Your task to perform on an android device: turn off data saver in the chrome app Image 0: 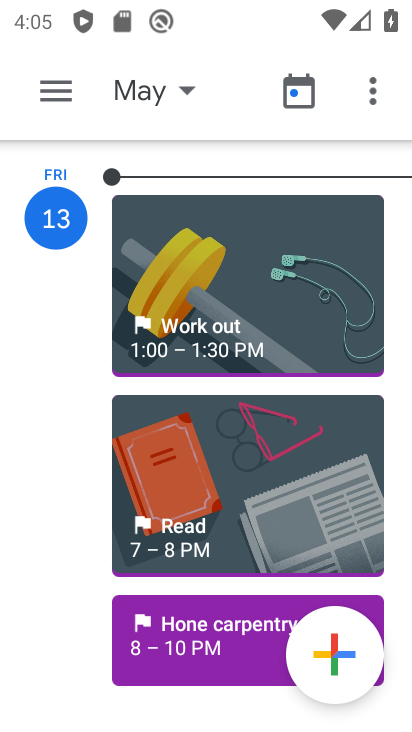
Step 0: press home button
Your task to perform on an android device: turn off data saver in the chrome app Image 1: 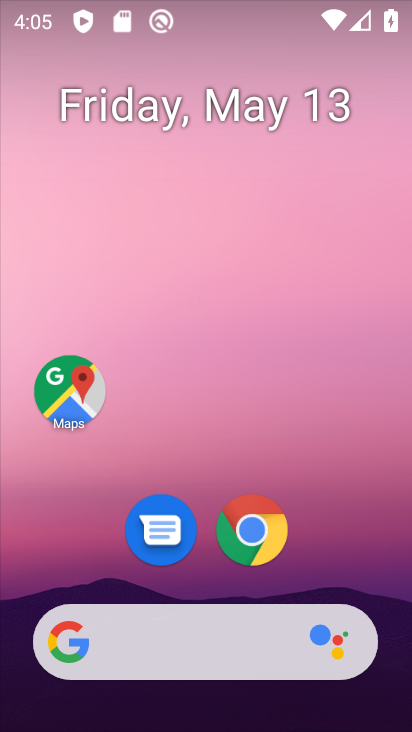
Step 1: drag from (234, 613) to (298, 158)
Your task to perform on an android device: turn off data saver in the chrome app Image 2: 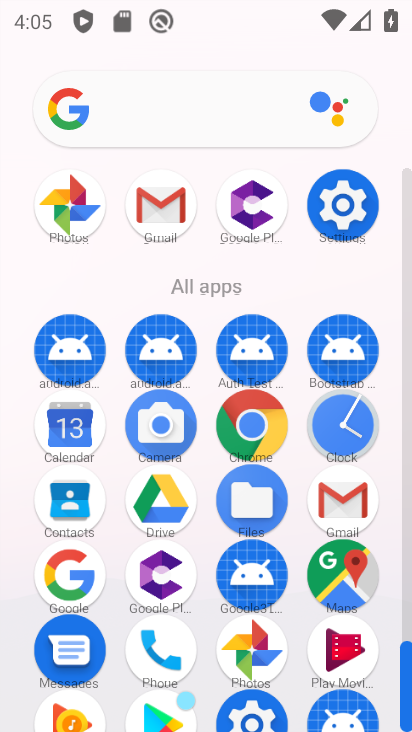
Step 2: click (256, 429)
Your task to perform on an android device: turn off data saver in the chrome app Image 3: 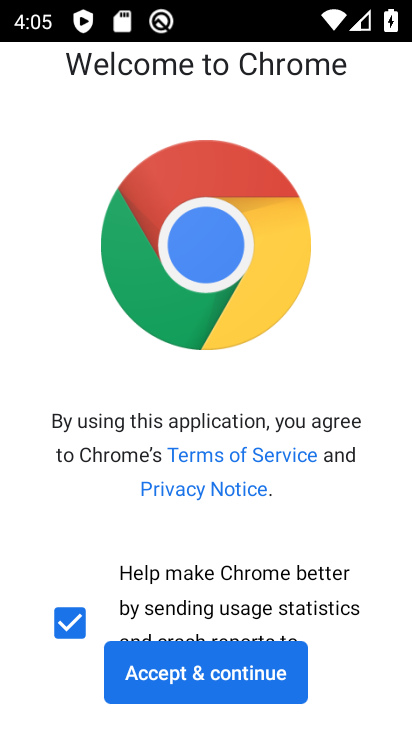
Step 3: click (238, 675)
Your task to perform on an android device: turn off data saver in the chrome app Image 4: 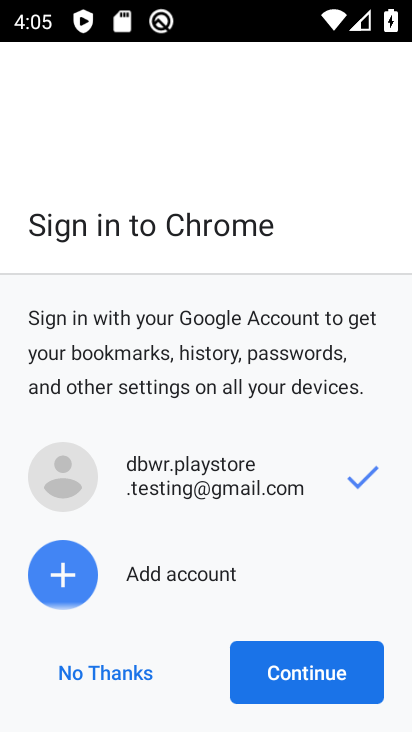
Step 4: click (264, 669)
Your task to perform on an android device: turn off data saver in the chrome app Image 5: 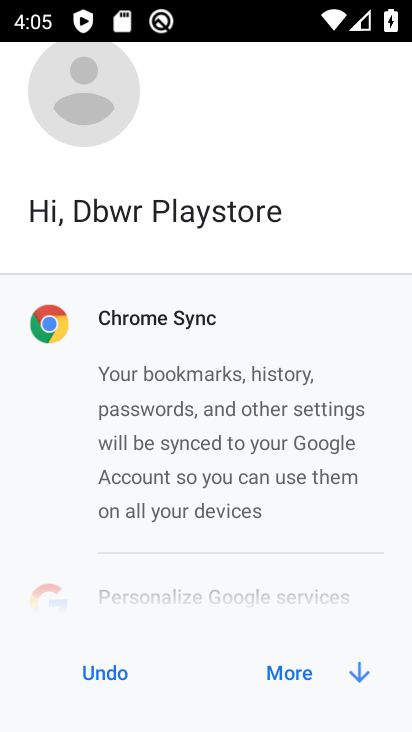
Step 5: click (331, 671)
Your task to perform on an android device: turn off data saver in the chrome app Image 6: 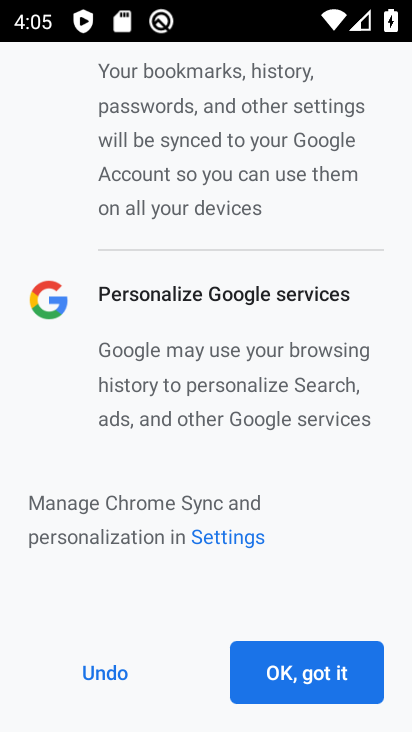
Step 6: click (326, 657)
Your task to perform on an android device: turn off data saver in the chrome app Image 7: 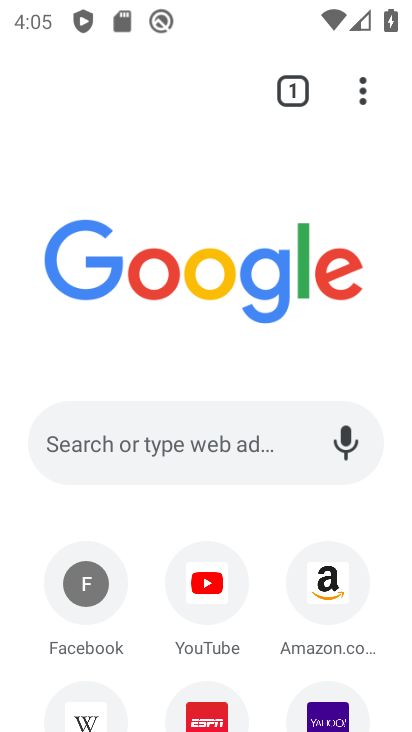
Step 7: click (354, 110)
Your task to perform on an android device: turn off data saver in the chrome app Image 8: 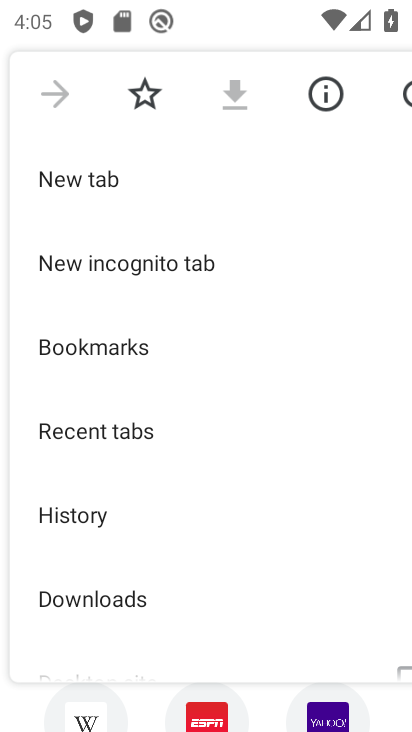
Step 8: drag from (97, 595) to (157, 391)
Your task to perform on an android device: turn off data saver in the chrome app Image 9: 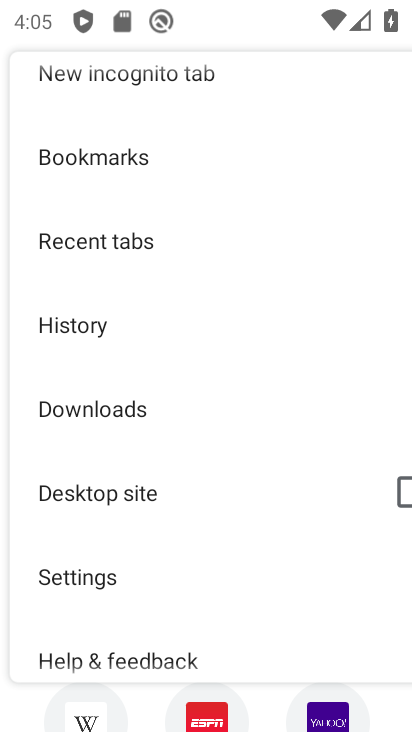
Step 9: click (125, 573)
Your task to perform on an android device: turn off data saver in the chrome app Image 10: 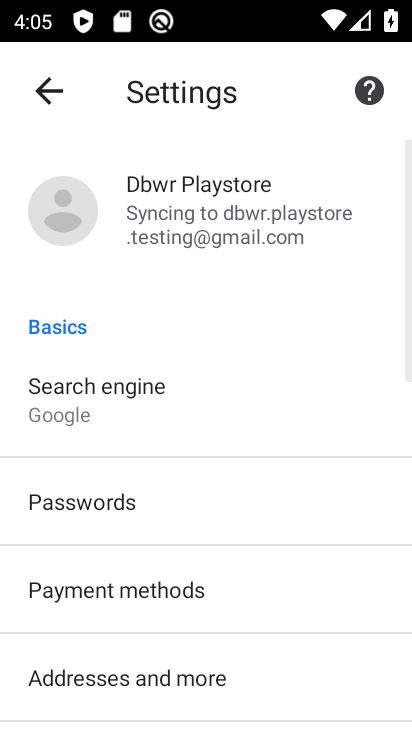
Step 10: drag from (173, 606) to (234, 240)
Your task to perform on an android device: turn off data saver in the chrome app Image 11: 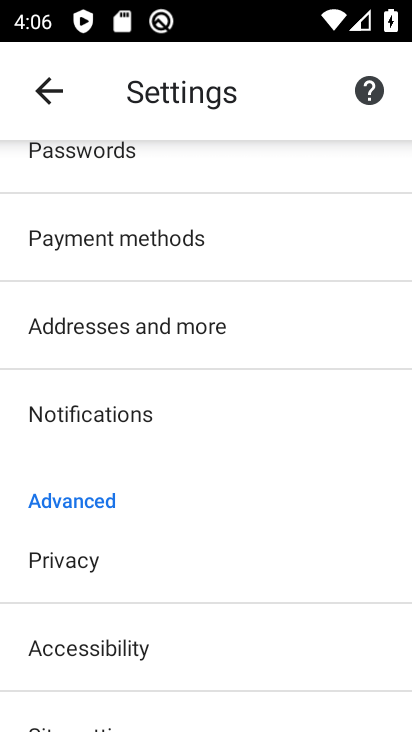
Step 11: drag from (142, 499) to (190, 317)
Your task to perform on an android device: turn off data saver in the chrome app Image 12: 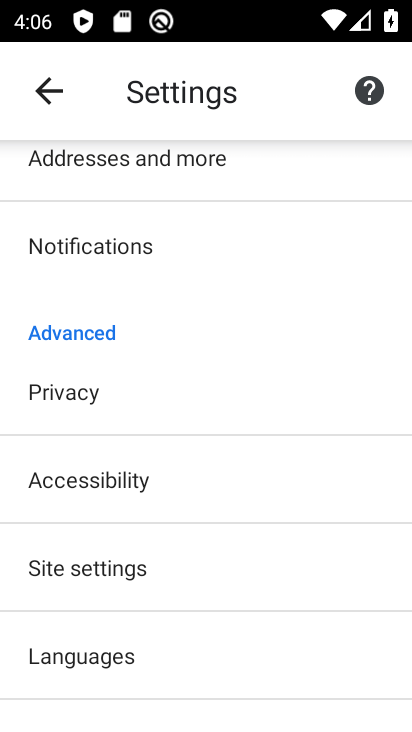
Step 12: drag from (95, 624) to (176, 369)
Your task to perform on an android device: turn off data saver in the chrome app Image 13: 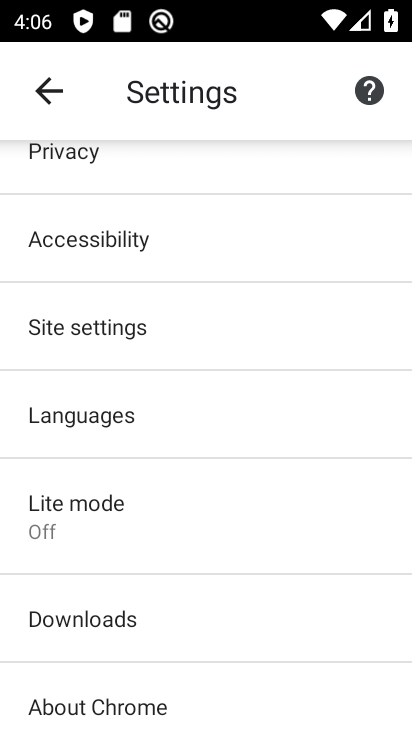
Step 13: click (106, 527)
Your task to perform on an android device: turn off data saver in the chrome app Image 14: 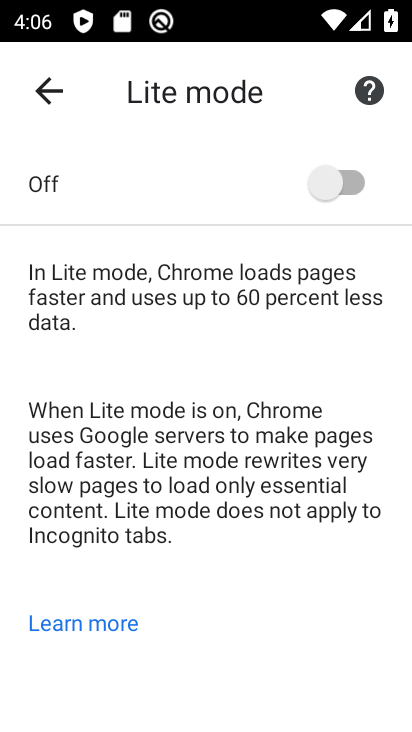
Step 14: click (359, 174)
Your task to perform on an android device: turn off data saver in the chrome app Image 15: 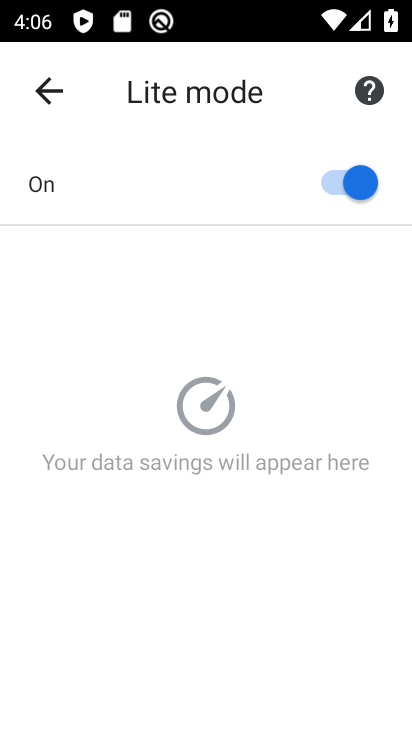
Step 15: click (358, 174)
Your task to perform on an android device: turn off data saver in the chrome app Image 16: 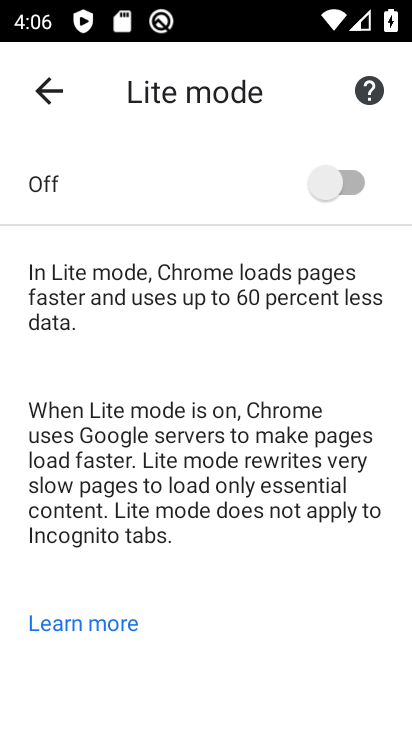
Step 16: task complete